Your task to perform on an android device: Open the map Image 0: 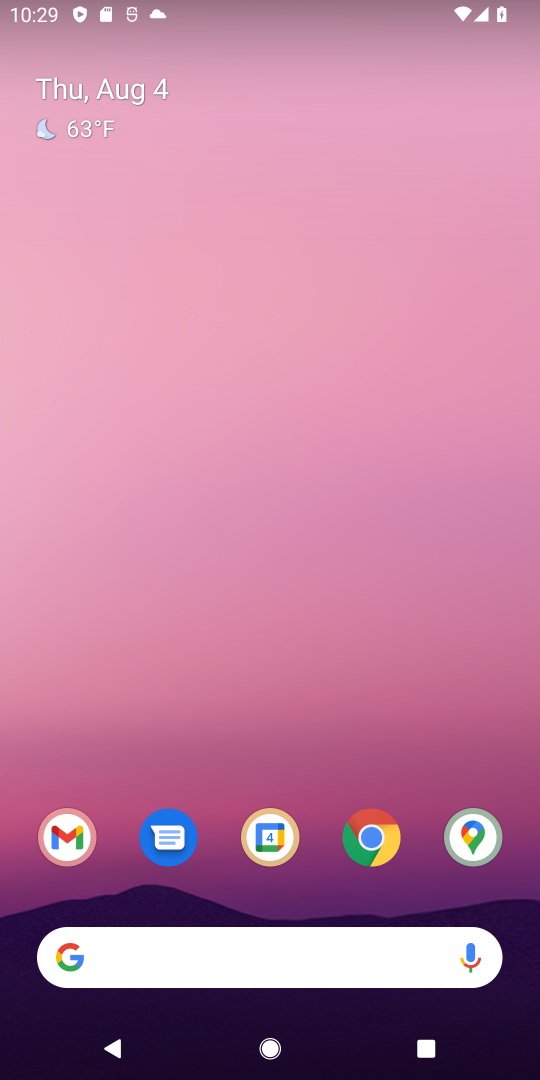
Step 0: click (469, 823)
Your task to perform on an android device: Open the map Image 1: 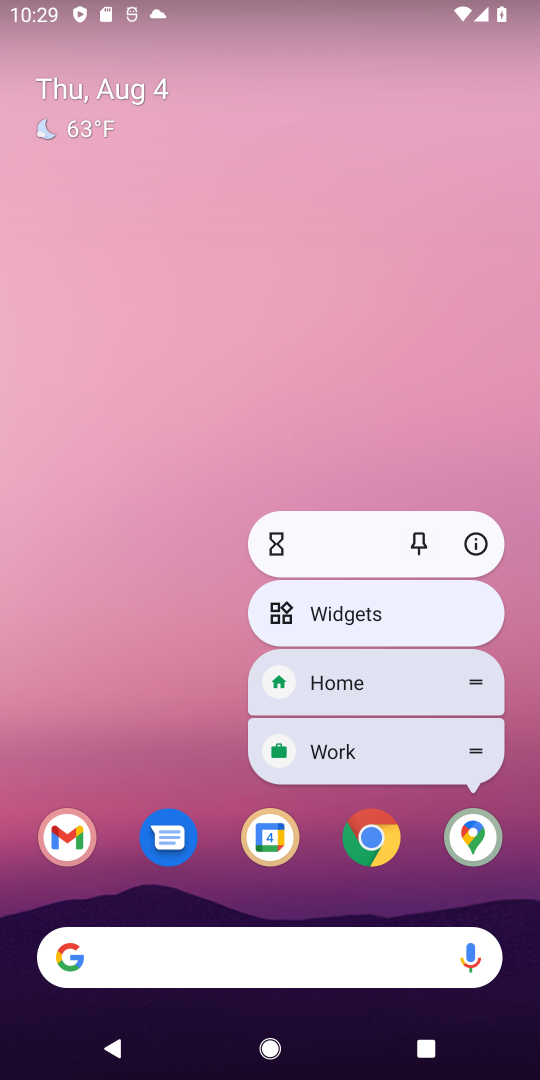
Step 1: click (468, 831)
Your task to perform on an android device: Open the map Image 2: 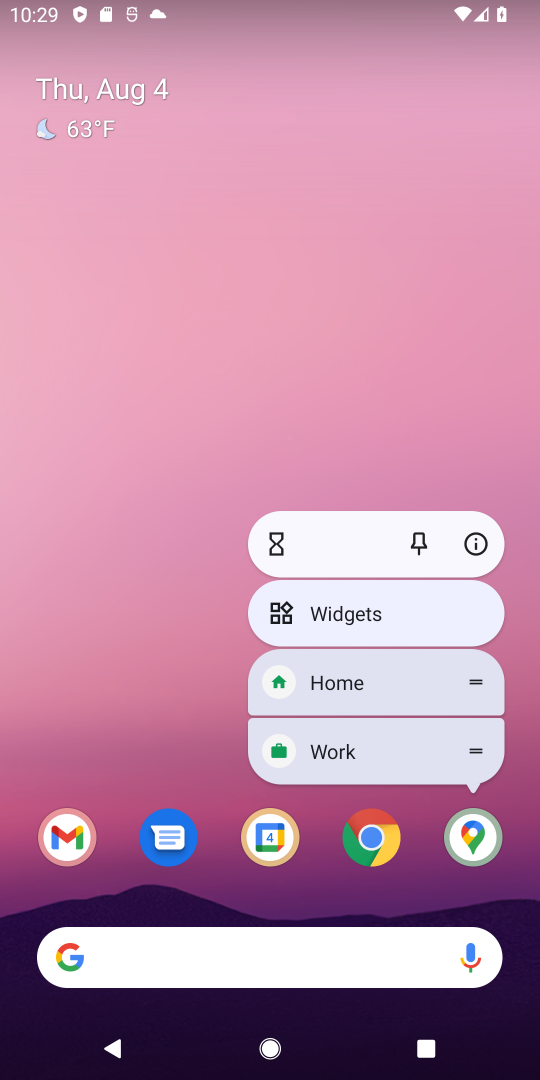
Step 2: click (43, 691)
Your task to perform on an android device: Open the map Image 3: 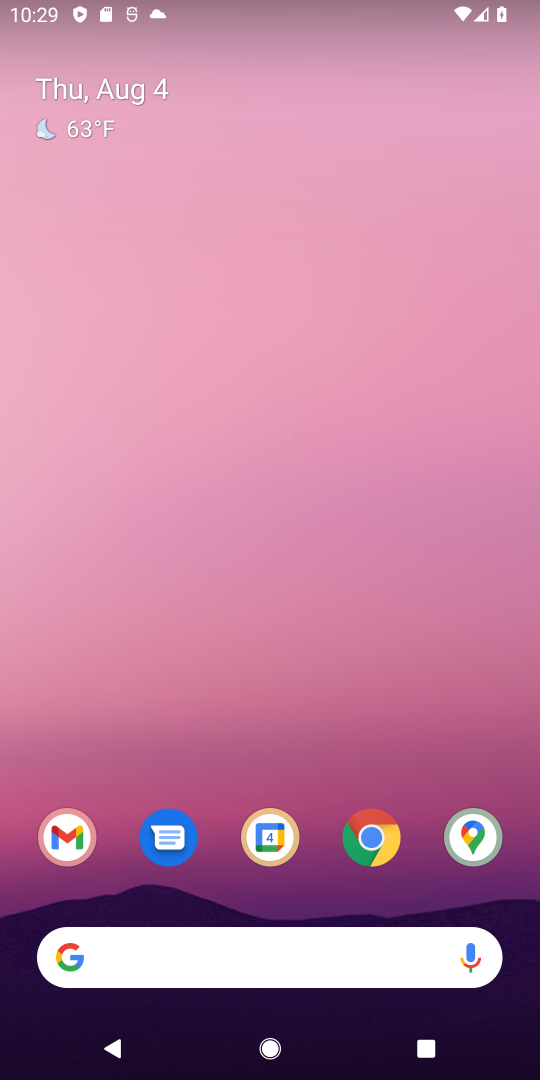
Step 3: drag from (213, 886) to (248, 223)
Your task to perform on an android device: Open the map Image 4: 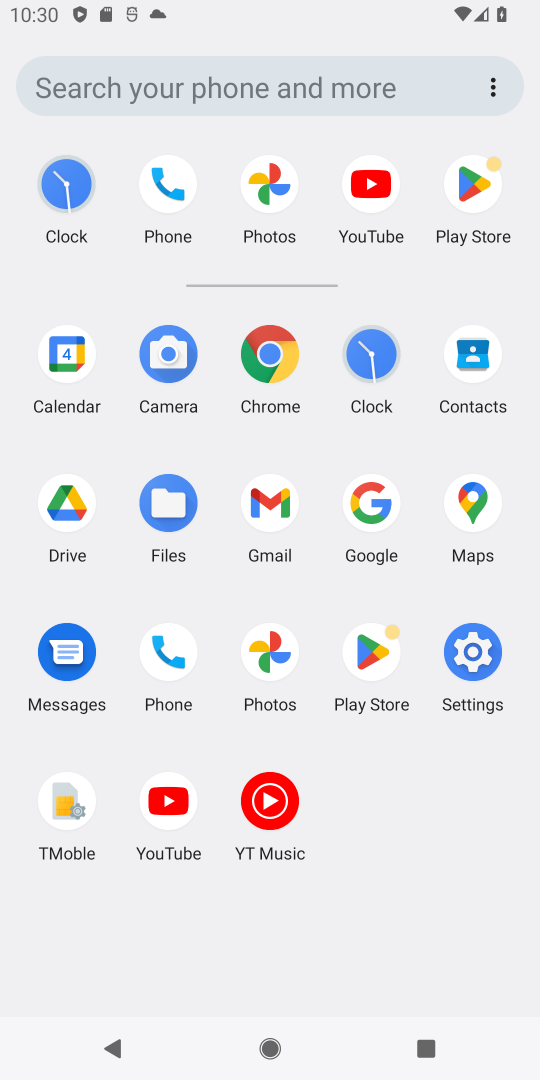
Step 4: click (470, 493)
Your task to perform on an android device: Open the map Image 5: 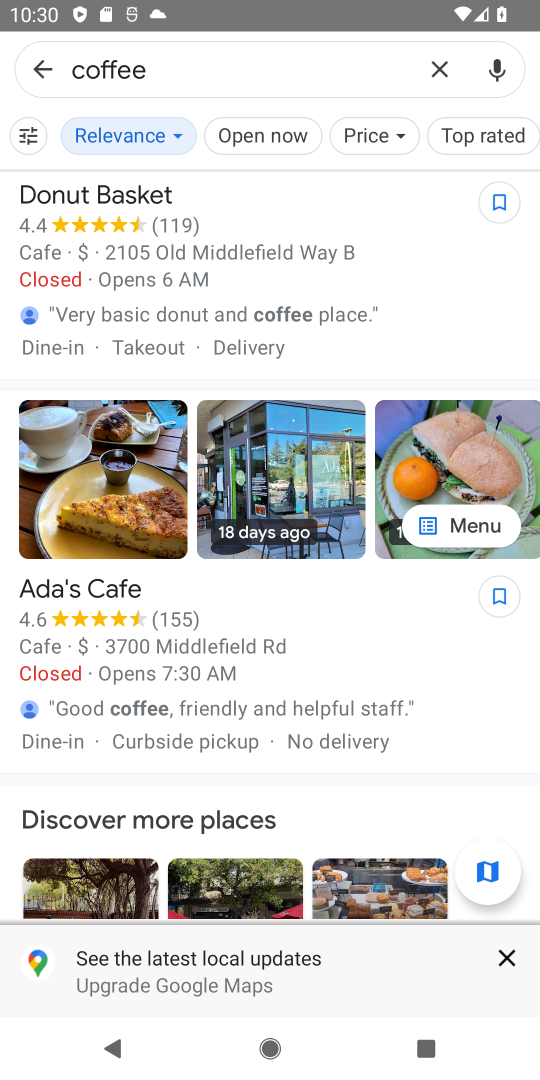
Step 5: click (37, 68)
Your task to perform on an android device: Open the map Image 6: 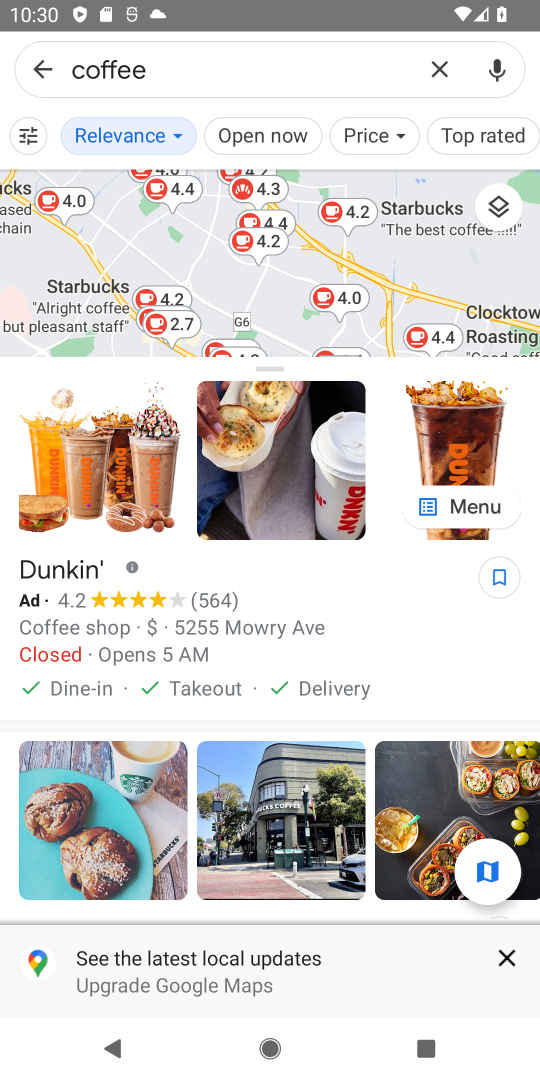
Step 6: click (44, 67)
Your task to perform on an android device: Open the map Image 7: 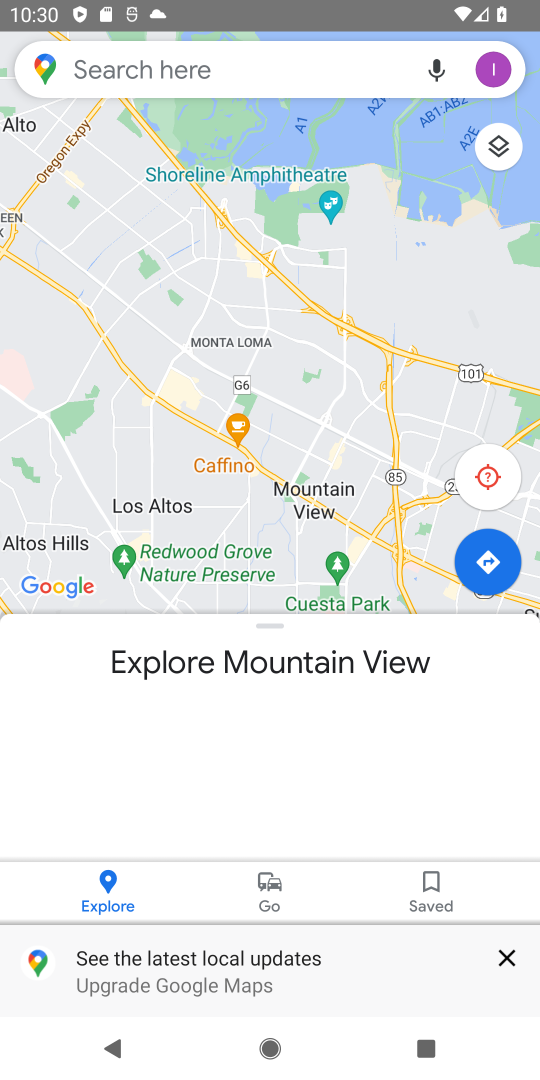
Step 7: task complete